Your task to perform on an android device: toggle sleep mode Image 0: 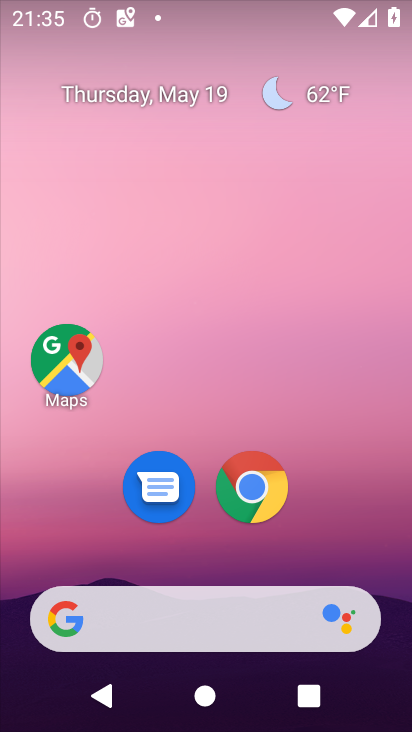
Step 0: drag from (312, 554) to (307, 138)
Your task to perform on an android device: toggle sleep mode Image 1: 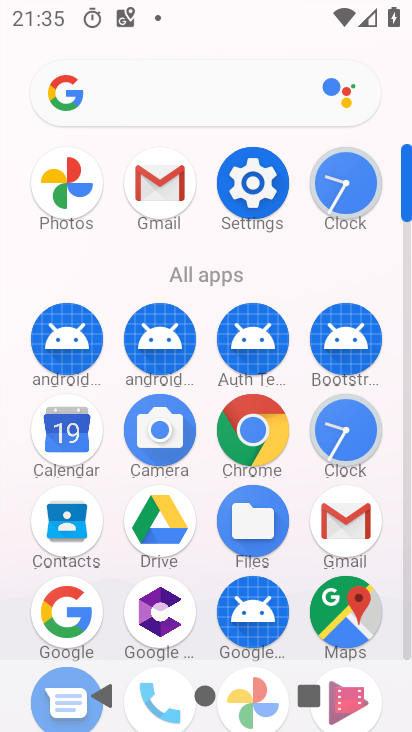
Step 1: click (247, 187)
Your task to perform on an android device: toggle sleep mode Image 2: 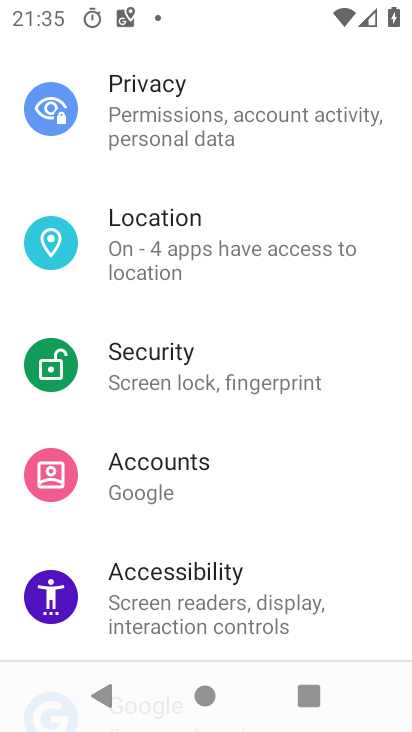
Step 2: drag from (245, 230) to (246, 568)
Your task to perform on an android device: toggle sleep mode Image 3: 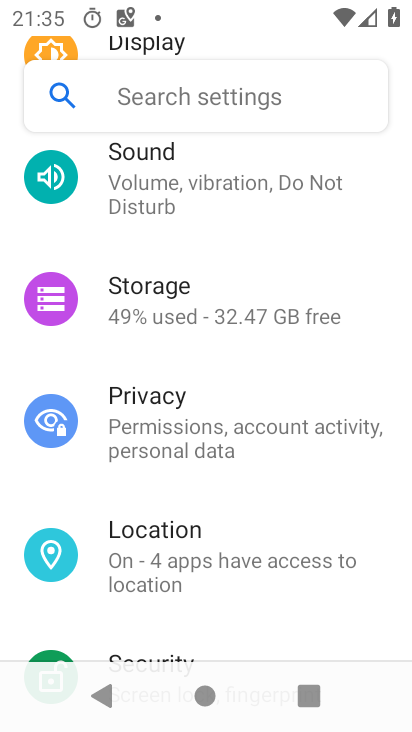
Step 3: drag from (259, 275) to (270, 605)
Your task to perform on an android device: toggle sleep mode Image 4: 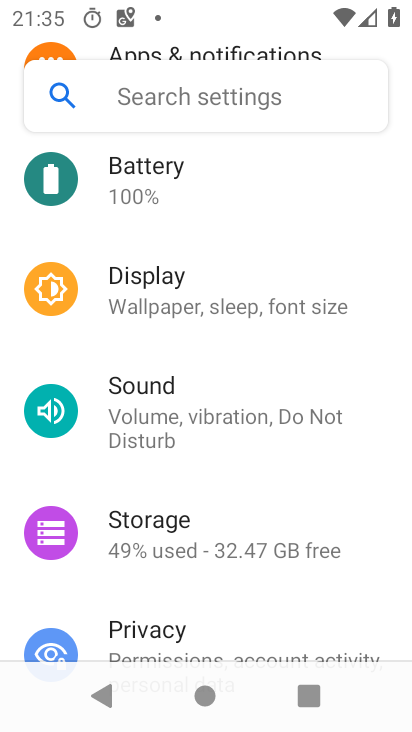
Step 4: click (213, 312)
Your task to perform on an android device: toggle sleep mode Image 5: 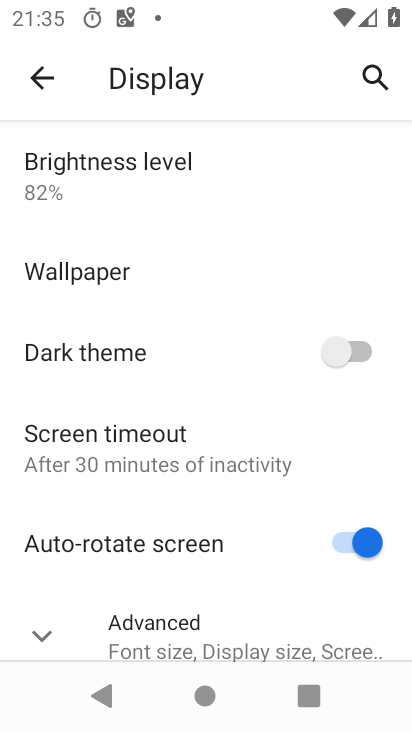
Step 5: drag from (246, 556) to (242, 210)
Your task to perform on an android device: toggle sleep mode Image 6: 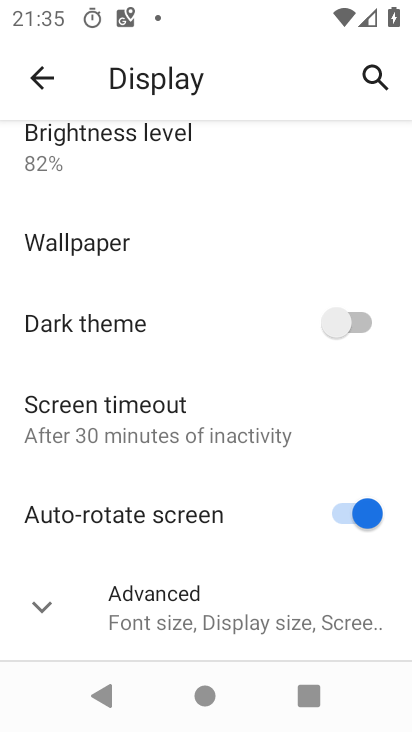
Step 6: click (256, 611)
Your task to perform on an android device: toggle sleep mode Image 7: 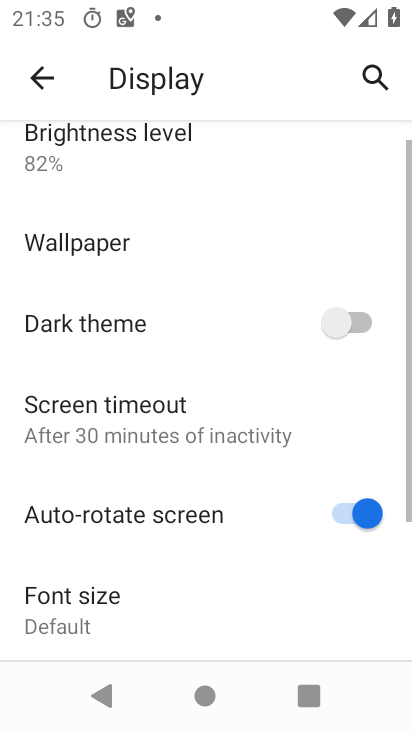
Step 7: task complete